Your task to perform on an android device: Clear all items from cart on newegg.com. Search for logitech g933 on newegg.com, select the first entry, add it to the cart, then select checkout. Image 0: 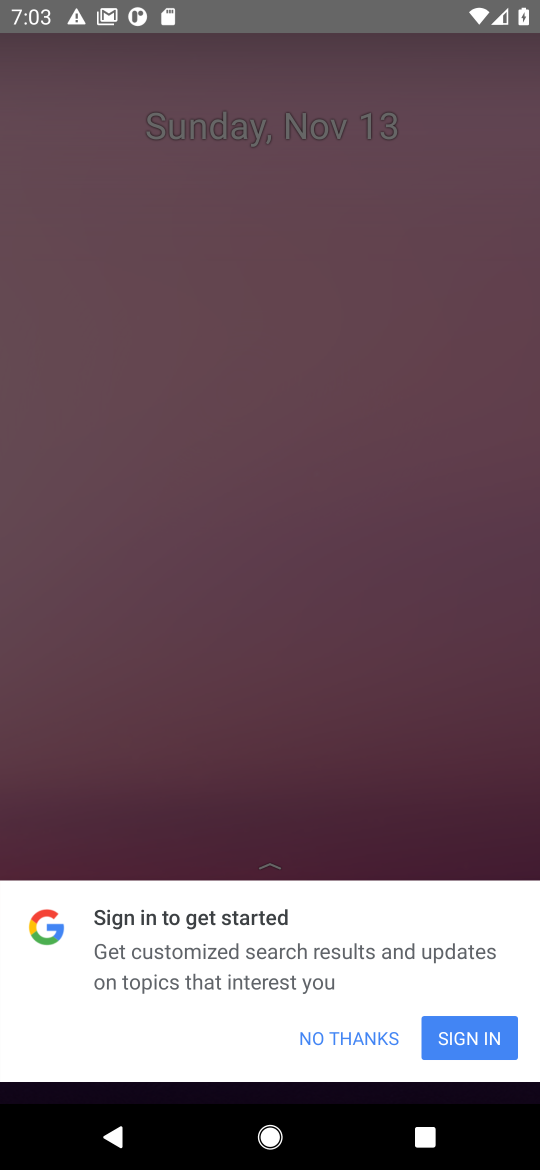
Step 0: press home button
Your task to perform on an android device: Clear all items from cart on newegg.com. Search for logitech g933 on newegg.com, select the first entry, add it to the cart, then select checkout. Image 1: 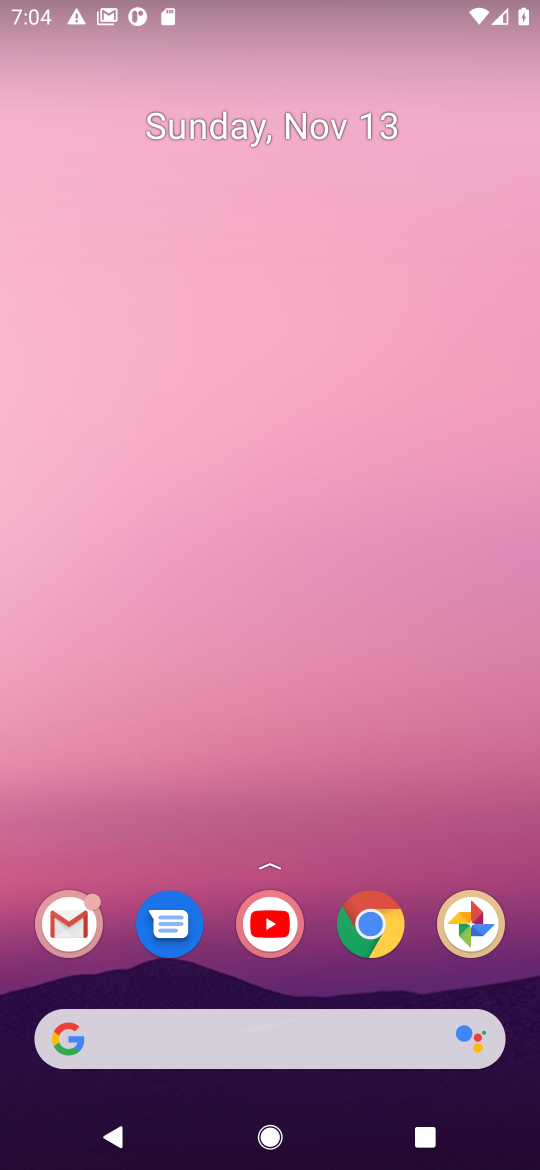
Step 1: click (364, 919)
Your task to perform on an android device: Clear all items from cart on newegg.com. Search for logitech g933 on newegg.com, select the first entry, add it to the cart, then select checkout. Image 2: 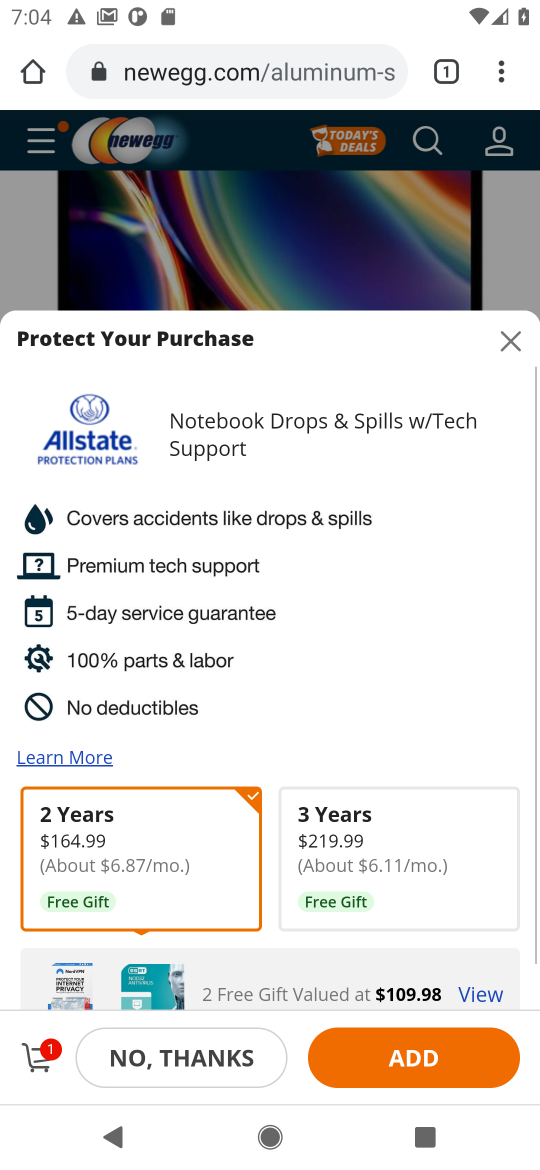
Step 2: click (37, 1057)
Your task to perform on an android device: Clear all items from cart on newegg.com. Search for logitech g933 on newegg.com, select the first entry, add it to the cart, then select checkout. Image 3: 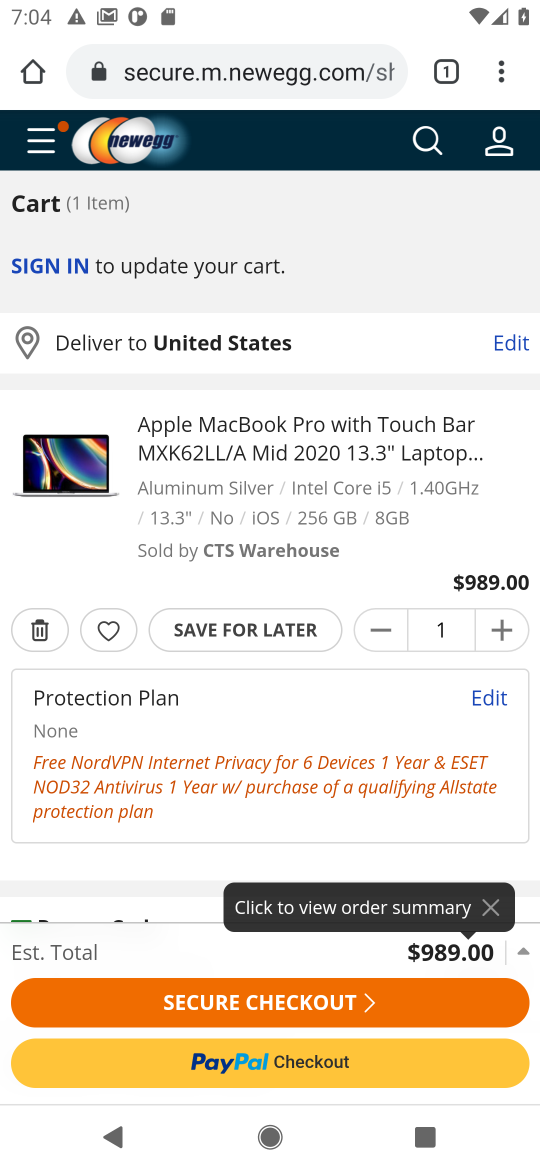
Step 3: click (35, 629)
Your task to perform on an android device: Clear all items from cart on newegg.com. Search for logitech g933 on newegg.com, select the first entry, add it to the cart, then select checkout. Image 4: 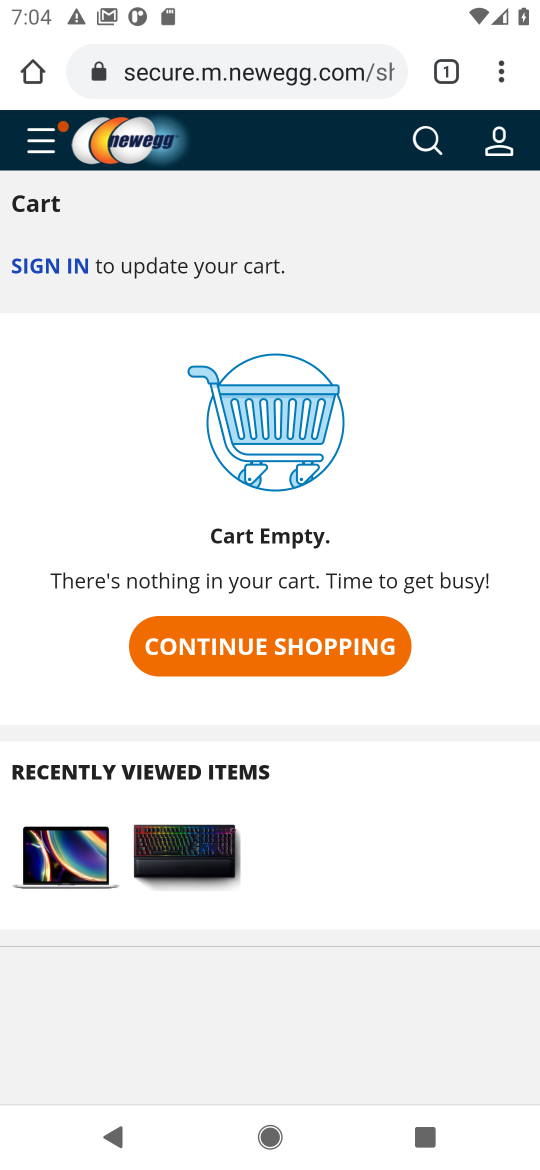
Step 4: click (239, 650)
Your task to perform on an android device: Clear all items from cart on newegg.com. Search for logitech g933 on newegg.com, select the first entry, add it to the cart, then select checkout. Image 5: 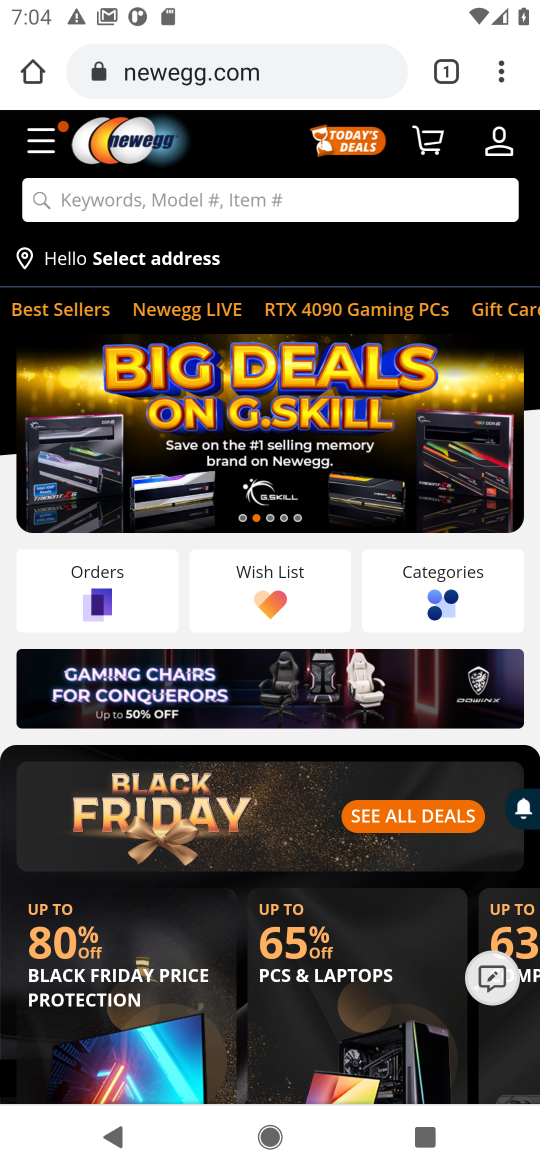
Step 5: click (167, 204)
Your task to perform on an android device: Clear all items from cart on newegg.com. Search for logitech g933 on newegg.com, select the first entry, add it to the cart, then select checkout. Image 6: 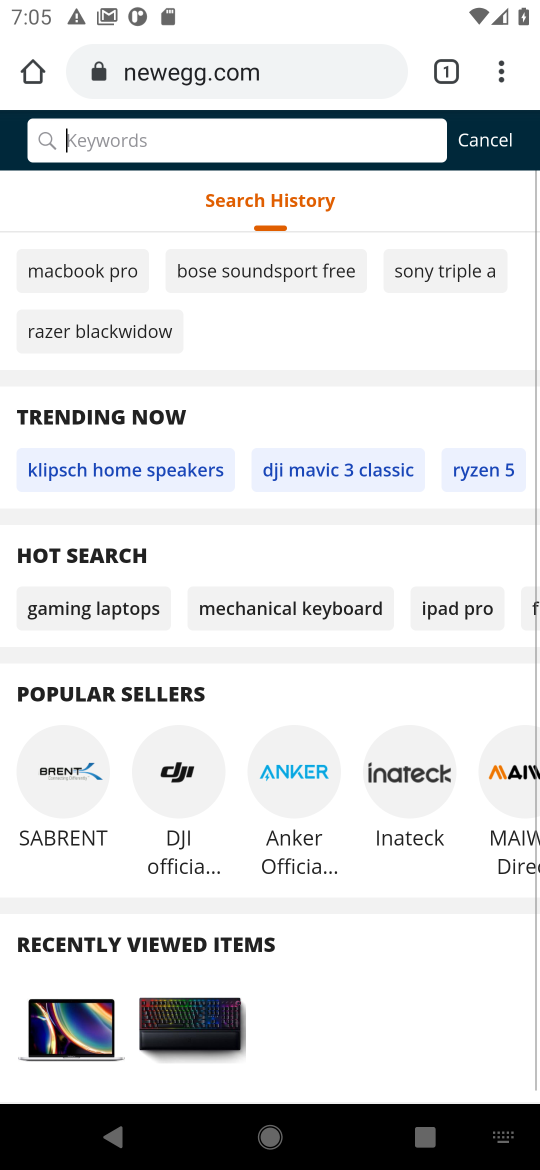
Step 6: type "logitech g933"
Your task to perform on an android device: Clear all items from cart on newegg.com. Search for logitech g933 on newegg.com, select the first entry, add it to the cart, then select checkout. Image 7: 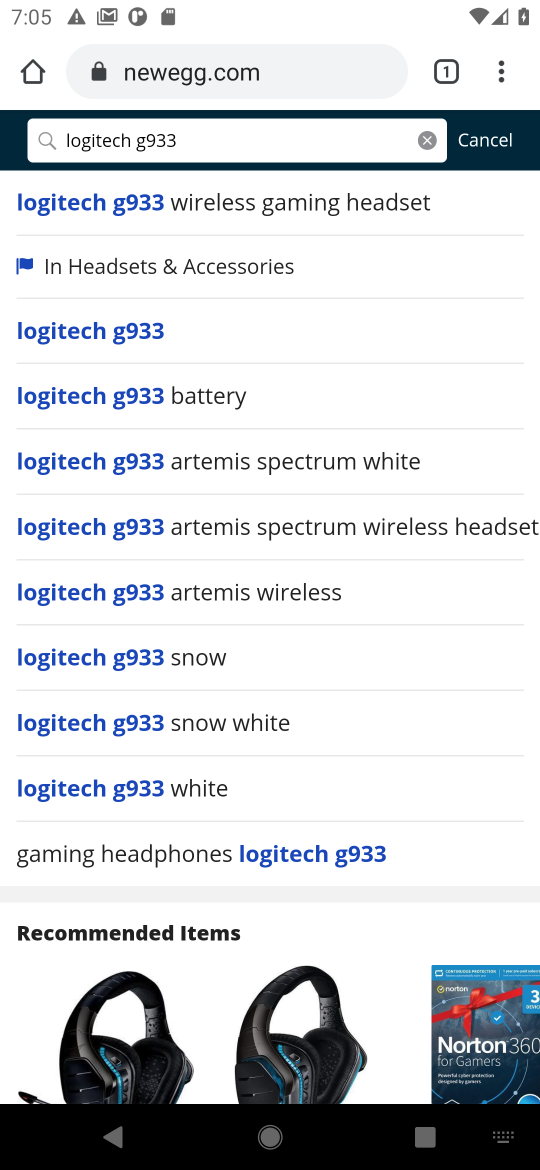
Step 7: click (96, 333)
Your task to perform on an android device: Clear all items from cart on newegg.com. Search for logitech g933 on newegg.com, select the first entry, add it to the cart, then select checkout. Image 8: 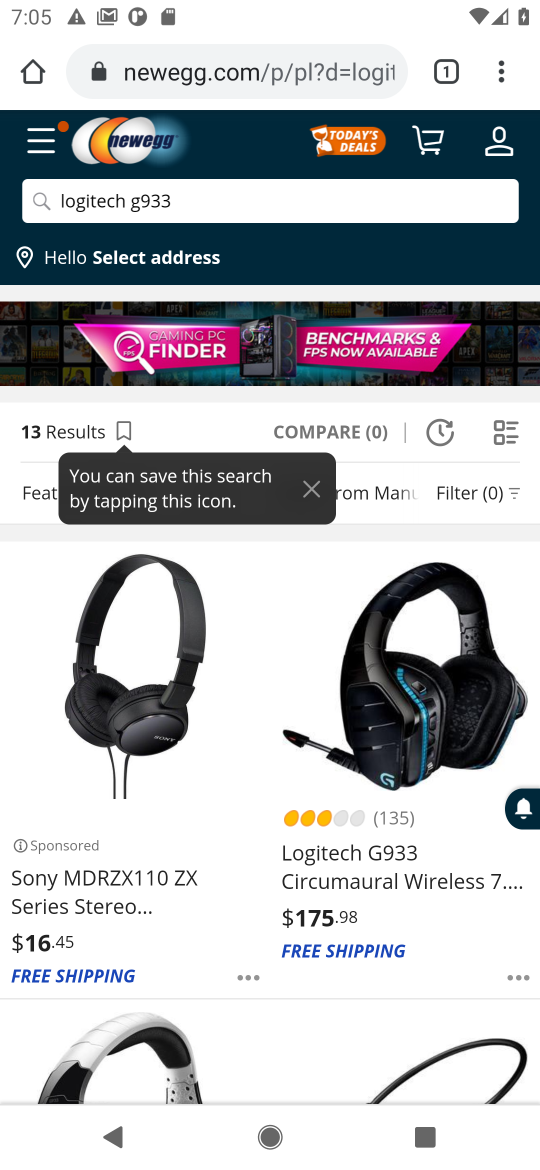
Step 8: task complete